Your task to perform on an android device: Open Maps and search for coffee Image 0: 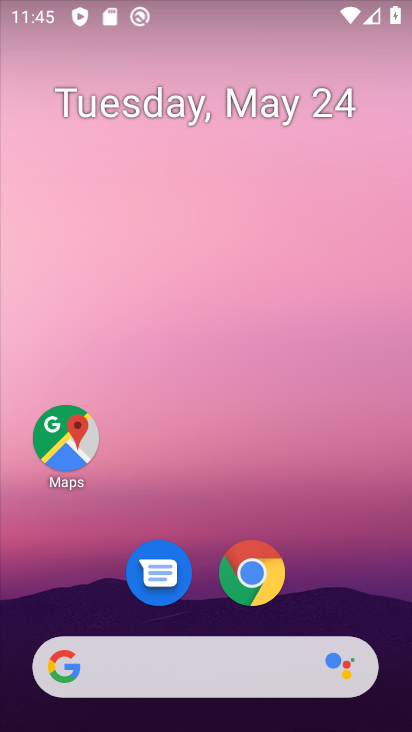
Step 0: drag from (345, 546) to (225, 39)
Your task to perform on an android device: Open Maps and search for coffee Image 1: 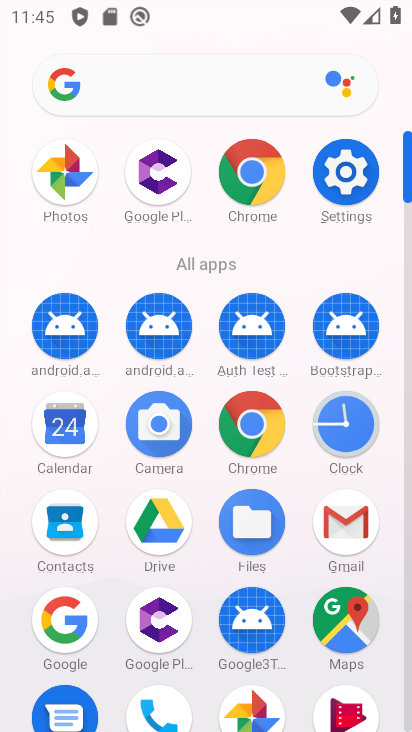
Step 1: drag from (2, 490) to (5, 218)
Your task to perform on an android device: Open Maps and search for coffee Image 2: 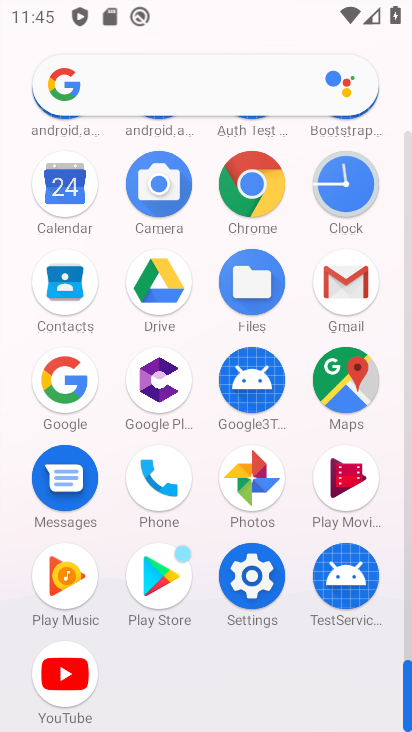
Step 2: click (344, 377)
Your task to perform on an android device: Open Maps and search for coffee Image 3: 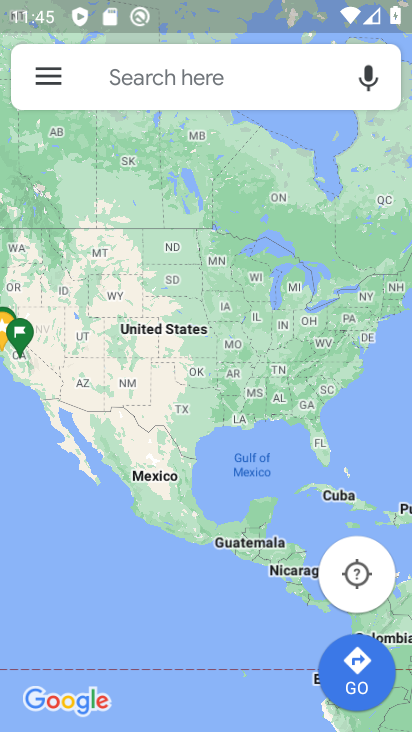
Step 3: click (258, 75)
Your task to perform on an android device: Open Maps and search for coffee Image 4: 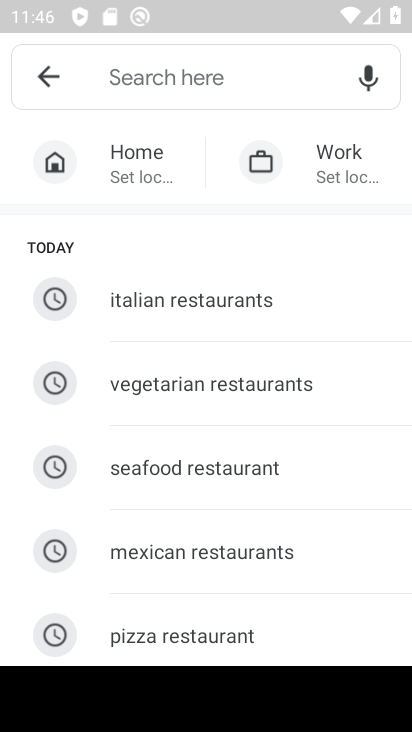
Step 4: type "coffee"
Your task to perform on an android device: Open Maps and search for coffee Image 5: 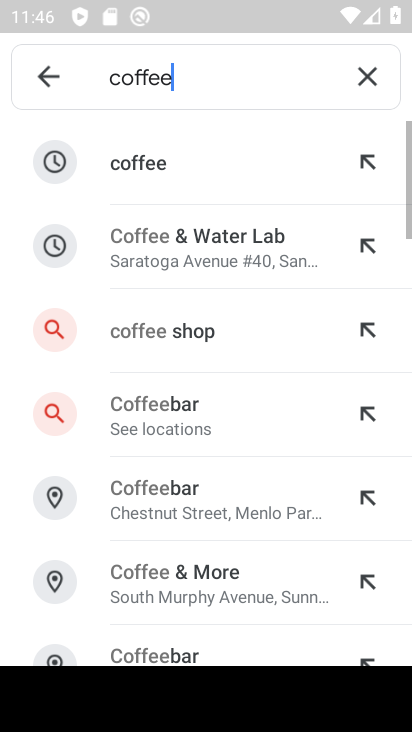
Step 5: click (183, 148)
Your task to perform on an android device: Open Maps and search for coffee Image 6: 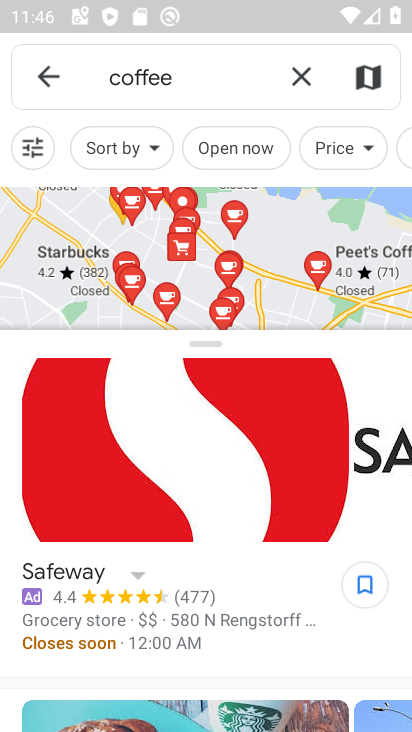
Step 6: task complete